Your task to perform on an android device: clear all cookies in the chrome app Image 0: 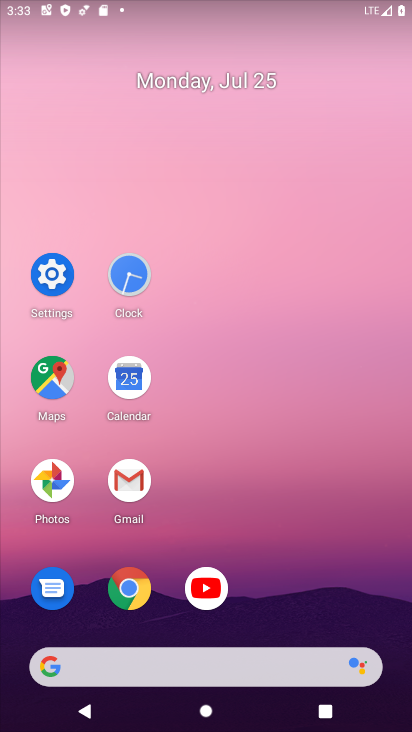
Step 0: click (127, 586)
Your task to perform on an android device: clear all cookies in the chrome app Image 1: 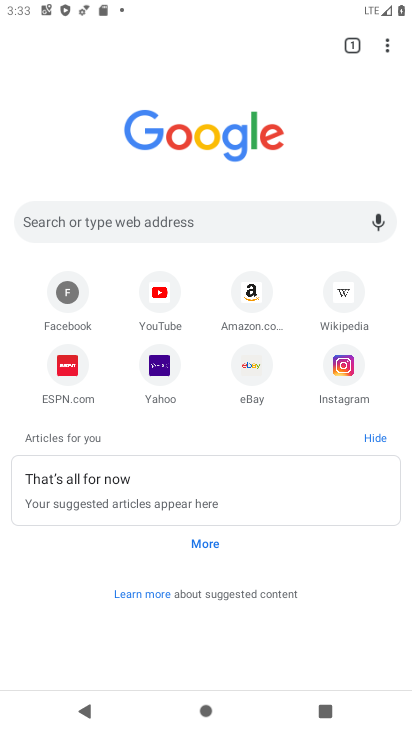
Step 1: click (390, 45)
Your task to perform on an android device: clear all cookies in the chrome app Image 2: 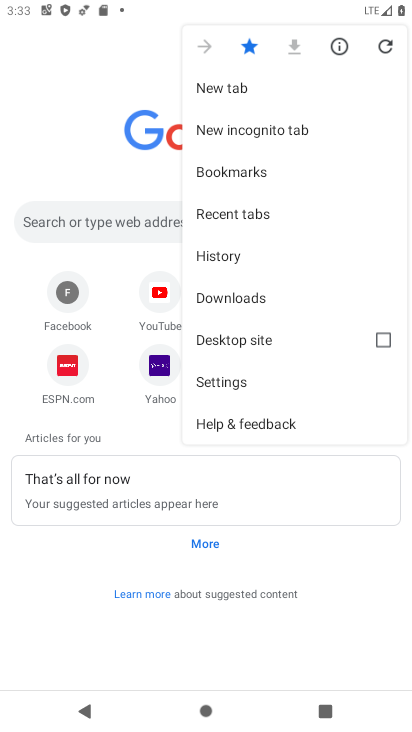
Step 2: click (221, 373)
Your task to perform on an android device: clear all cookies in the chrome app Image 3: 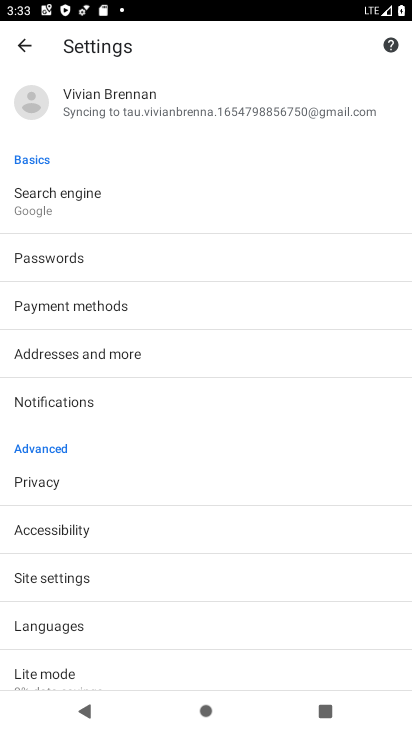
Step 3: click (37, 473)
Your task to perform on an android device: clear all cookies in the chrome app Image 4: 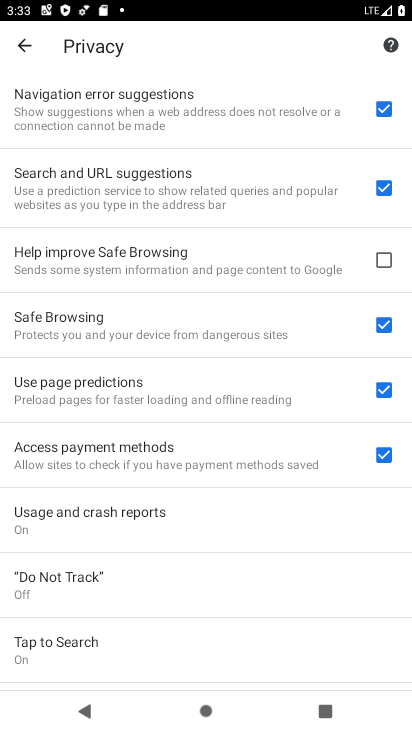
Step 4: drag from (194, 626) to (103, 160)
Your task to perform on an android device: clear all cookies in the chrome app Image 5: 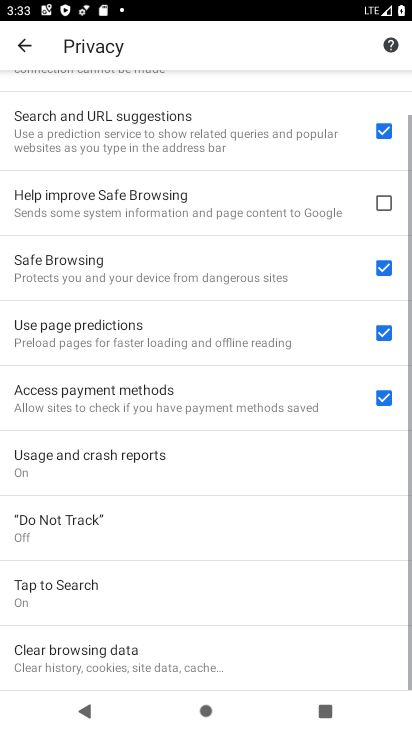
Step 5: click (64, 639)
Your task to perform on an android device: clear all cookies in the chrome app Image 6: 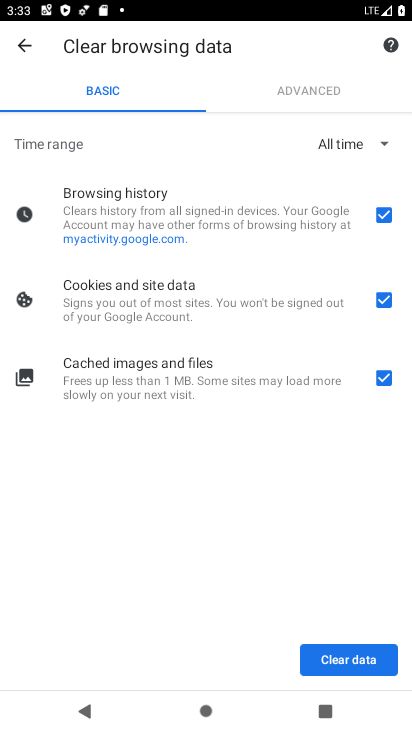
Step 6: click (388, 214)
Your task to perform on an android device: clear all cookies in the chrome app Image 7: 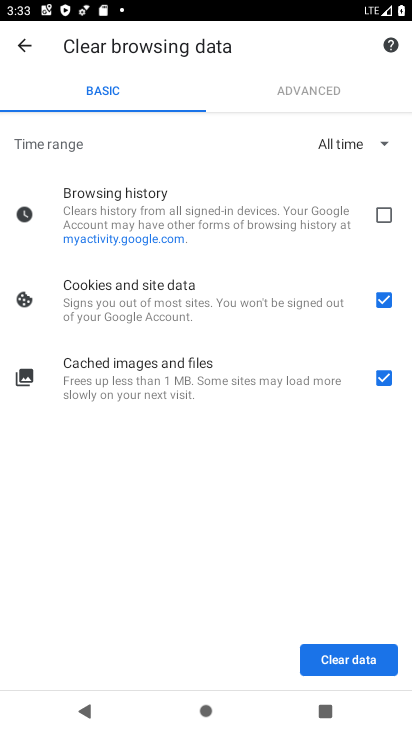
Step 7: click (384, 375)
Your task to perform on an android device: clear all cookies in the chrome app Image 8: 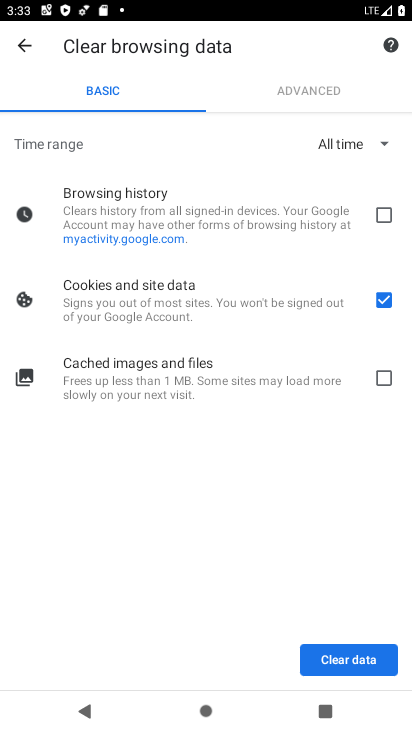
Step 8: click (356, 658)
Your task to perform on an android device: clear all cookies in the chrome app Image 9: 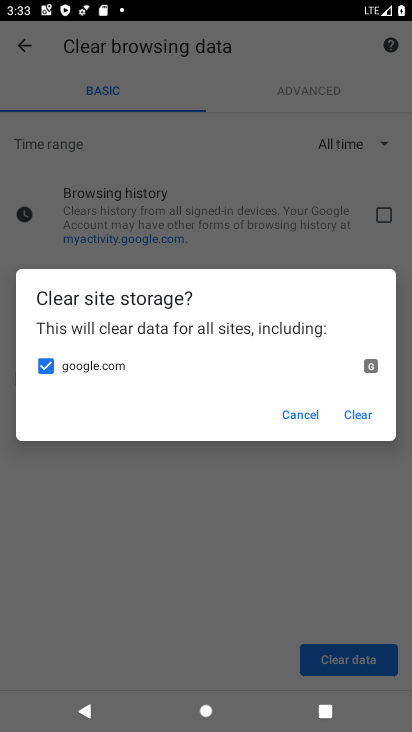
Step 9: click (362, 415)
Your task to perform on an android device: clear all cookies in the chrome app Image 10: 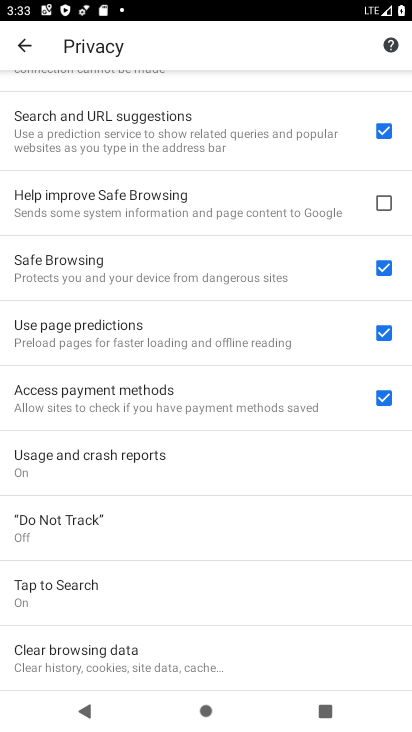
Step 10: task complete